Your task to perform on an android device: Set the phone to "Do not disturb". Image 0: 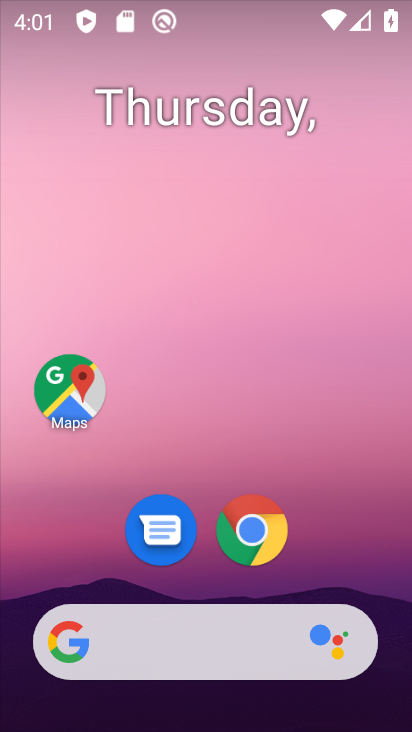
Step 0: drag from (243, 2) to (266, 462)
Your task to perform on an android device: Set the phone to "Do not disturb". Image 1: 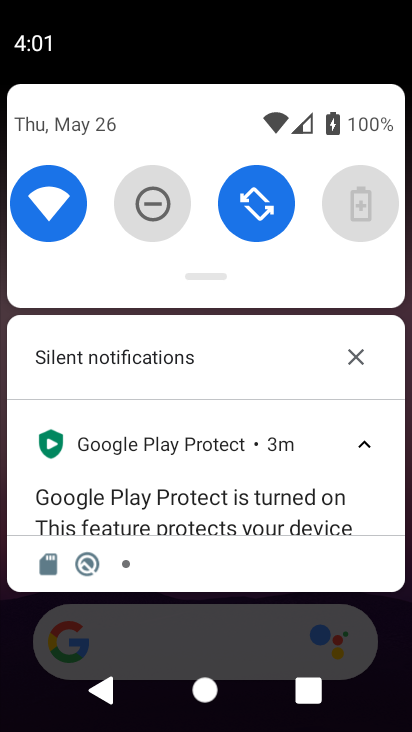
Step 1: click (142, 196)
Your task to perform on an android device: Set the phone to "Do not disturb". Image 2: 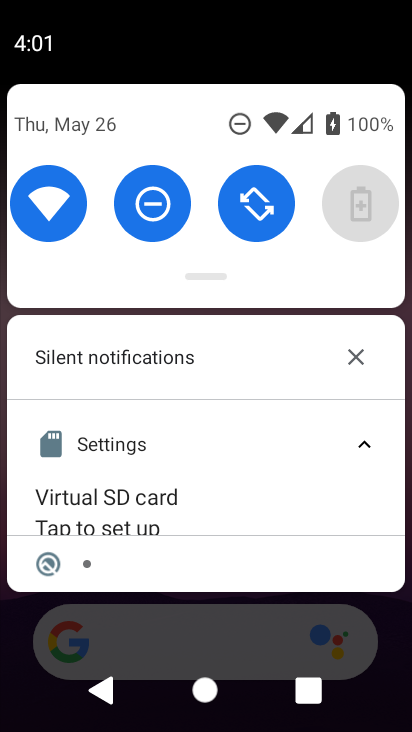
Step 2: task complete